Your task to perform on an android device: Open Youtube and go to "Your channel" Image 0: 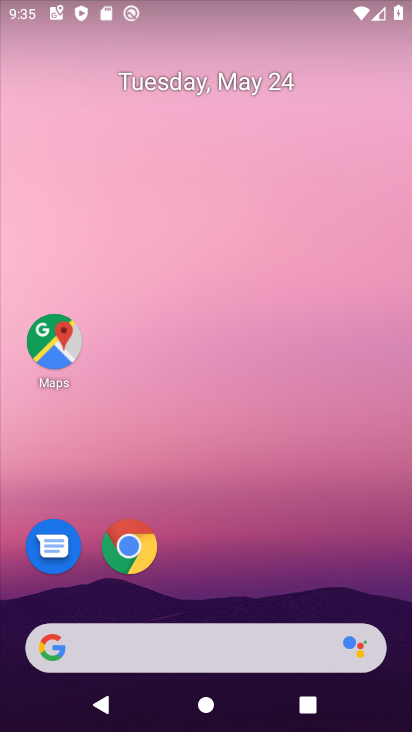
Step 0: drag from (224, 624) to (299, 198)
Your task to perform on an android device: Open Youtube and go to "Your channel" Image 1: 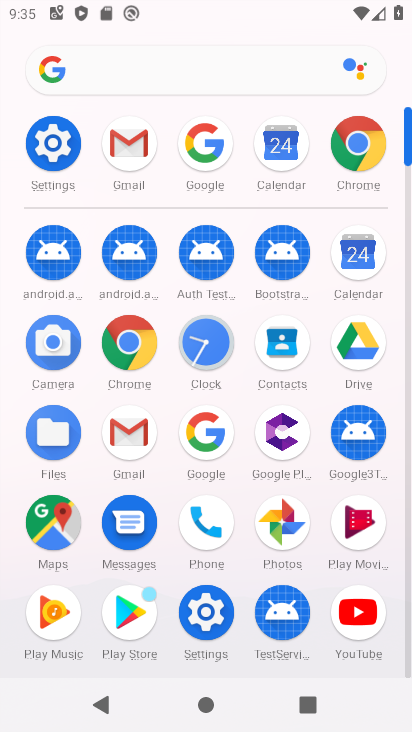
Step 1: click (371, 615)
Your task to perform on an android device: Open Youtube and go to "Your channel" Image 2: 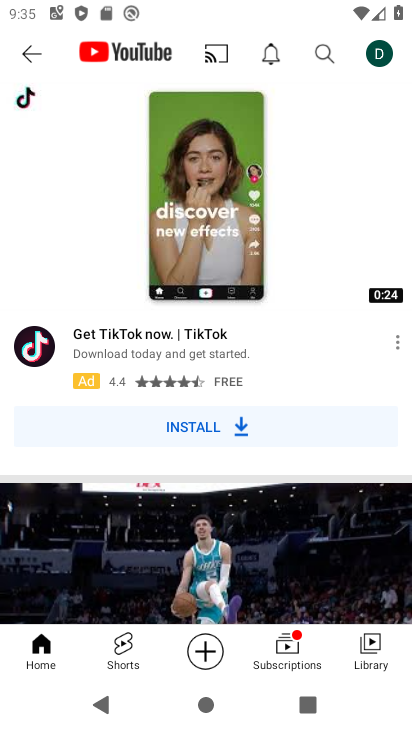
Step 2: click (390, 54)
Your task to perform on an android device: Open Youtube and go to "Your channel" Image 3: 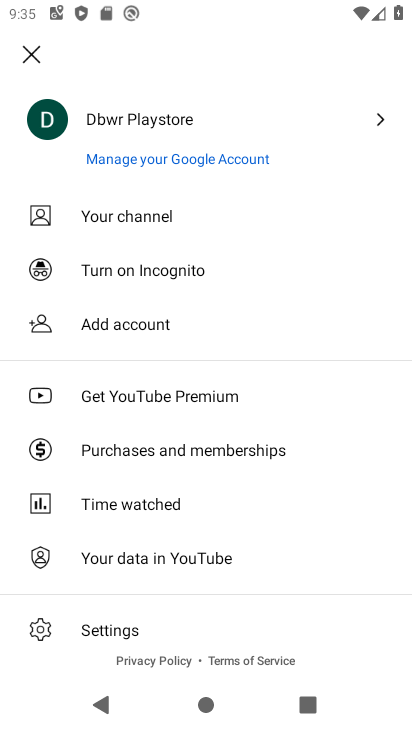
Step 3: click (113, 212)
Your task to perform on an android device: Open Youtube and go to "Your channel" Image 4: 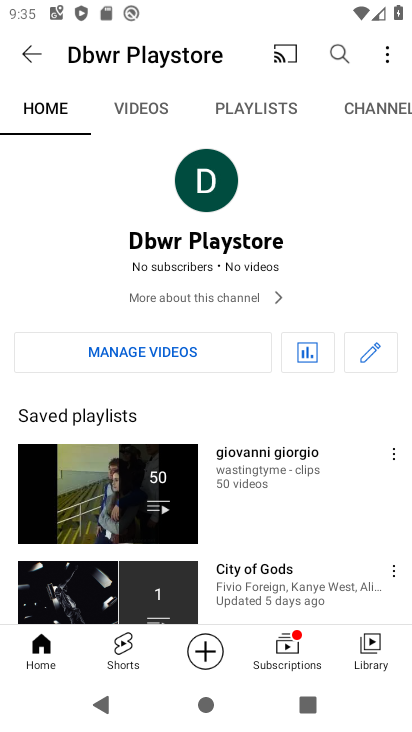
Step 4: task complete